Your task to perform on an android device: Play the last video I watched on Youtube Image 0: 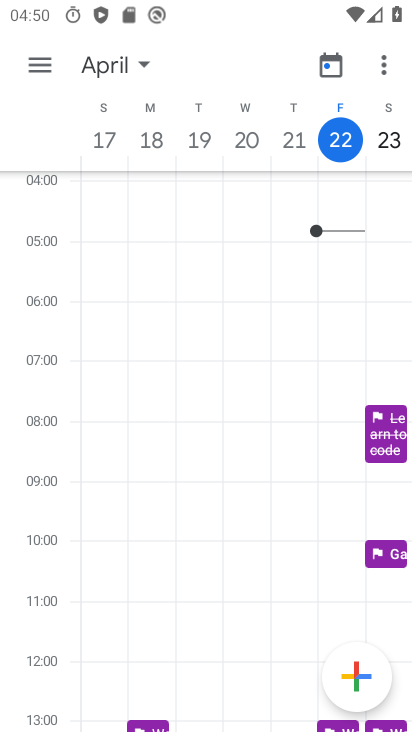
Step 0: press home button
Your task to perform on an android device: Play the last video I watched on Youtube Image 1: 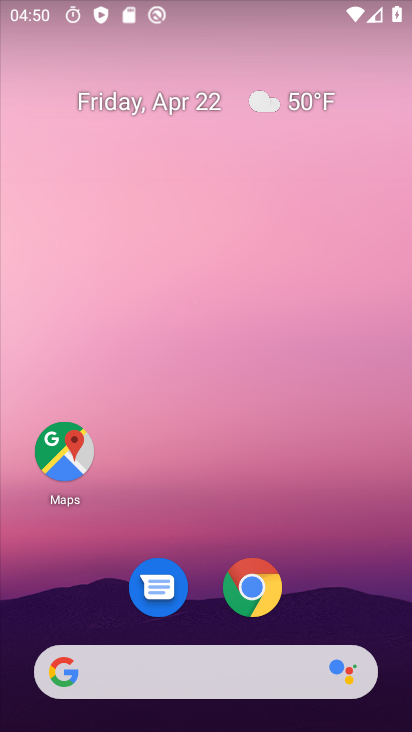
Step 1: drag from (356, 619) to (367, 24)
Your task to perform on an android device: Play the last video I watched on Youtube Image 2: 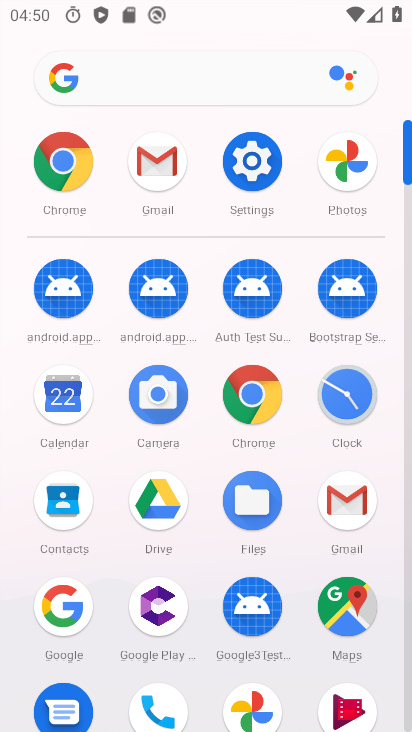
Step 2: click (403, 615)
Your task to perform on an android device: Play the last video I watched on Youtube Image 3: 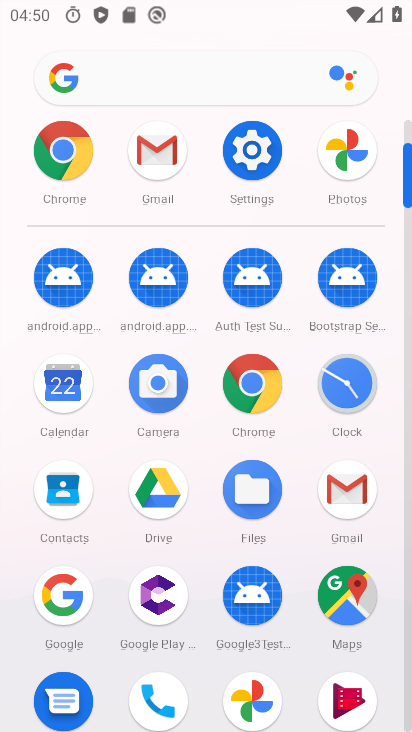
Step 3: drag from (407, 576) to (410, 521)
Your task to perform on an android device: Play the last video I watched on Youtube Image 4: 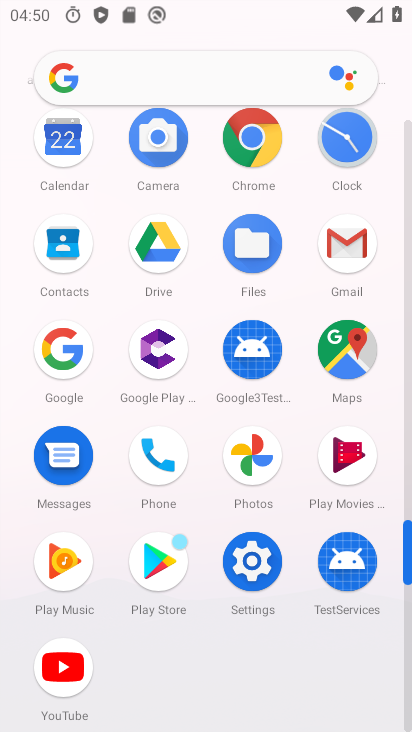
Step 4: click (65, 670)
Your task to perform on an android device: Play the last video I watched on Youtube Image 5: 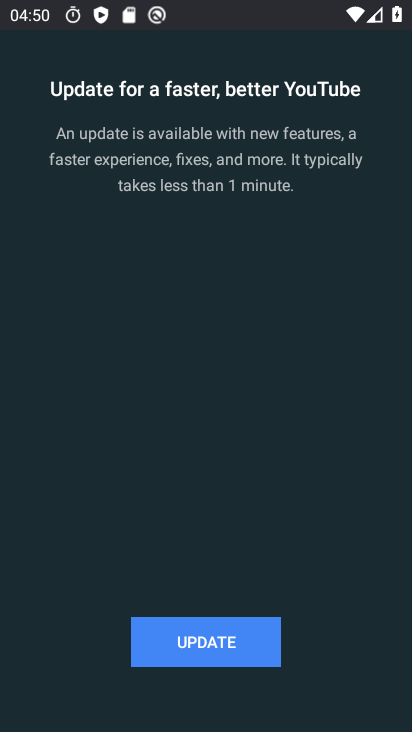
Step 5: click (204, 648)
Your task to perform on an android device: Play the last video I watched on Youtube Image 6: 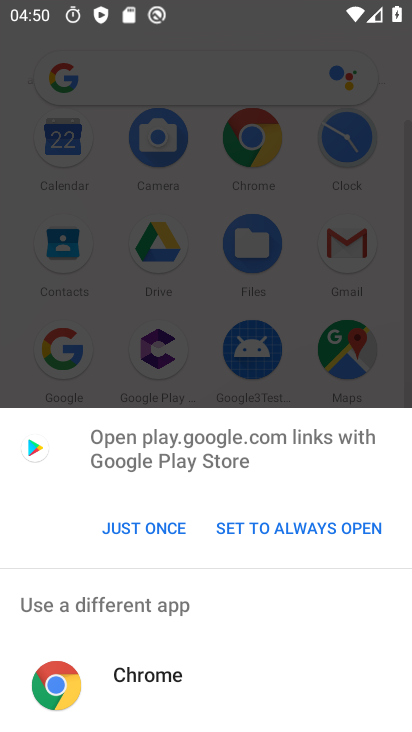
Step 6: click (132, 525)
Your task to perform on an android device: Play the last video I watched on Youtube Image 7: 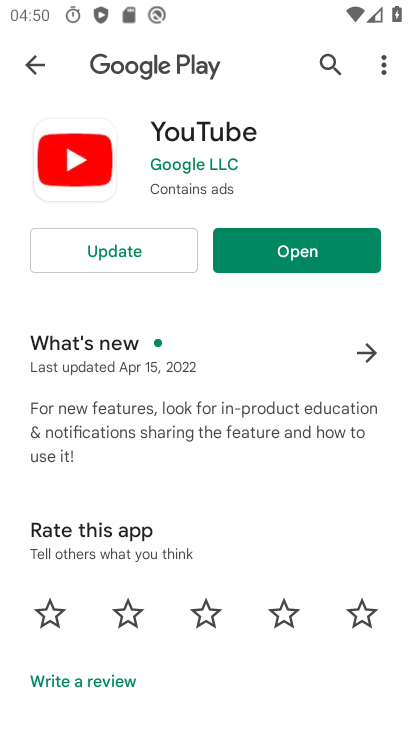
Step 7: click (127, 261)
Your task to perform on an android device: Play the last video I watched on Youtube Image 8: 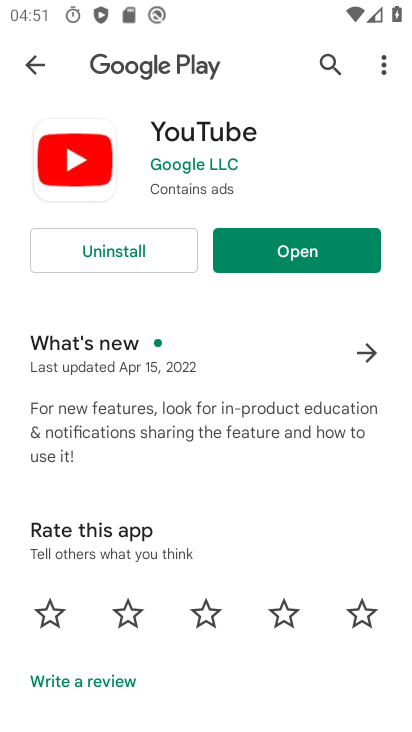
Step 8: click (267, 256)
Your task to perform on an android device: Play the last video I watched on Youtube Image 9: 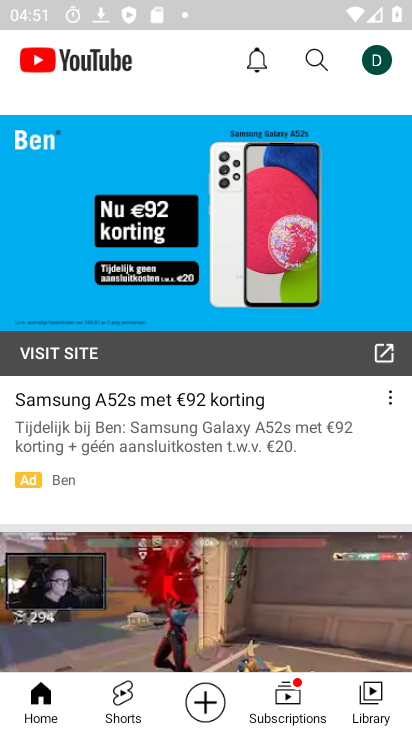
Step 9: click (365, 709)
Your task to perform on an android device: Play the last video I watched on Youtube Image 10: 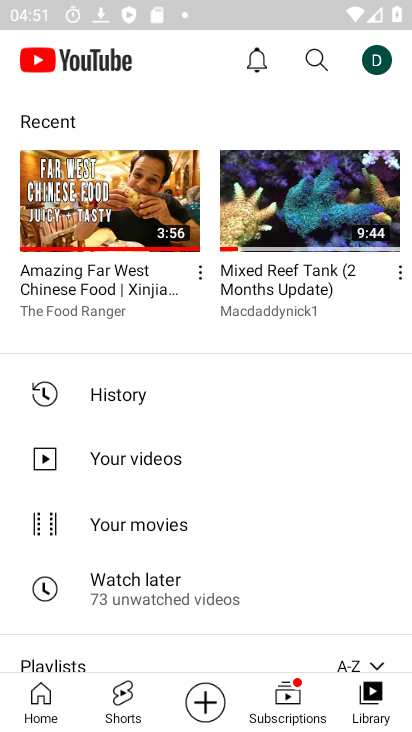
Step 10: click (122, 389)
Your task to perform on an android device: Play the last video I watched on Youtube Image 11: 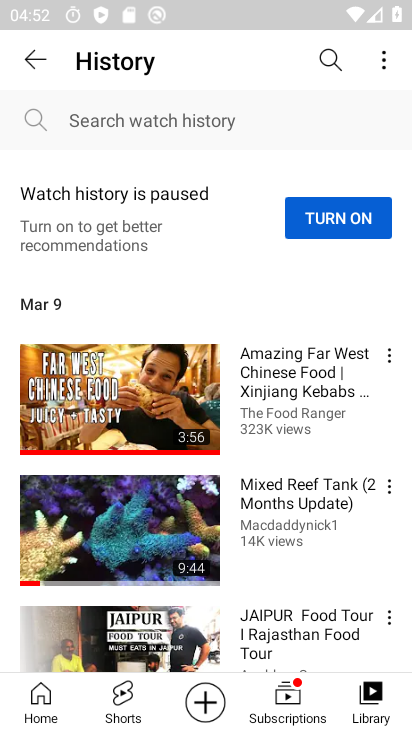
Step 11: click (129, 386)
Your task to perform on an android device: Play the last video I watched on Youtube Image 12: 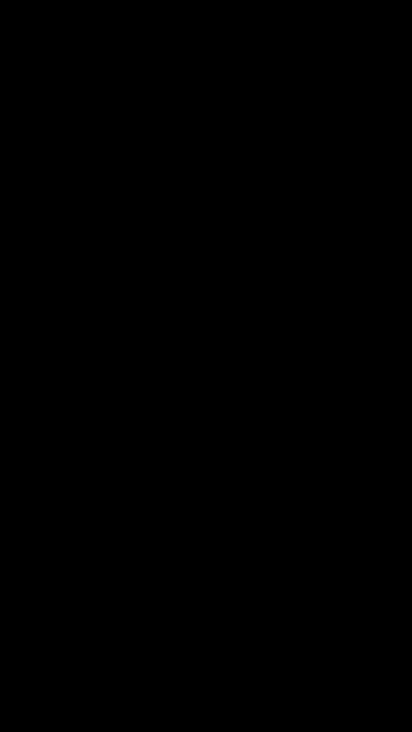
Step 12: task complete